Your task to perform on an android device: Is it going to rain today? Image 0: 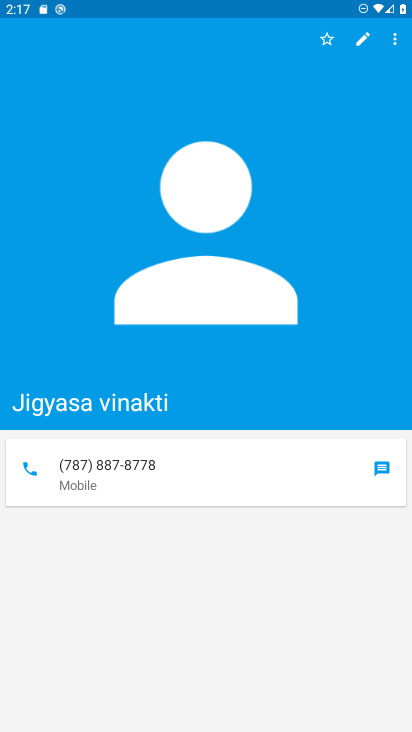
Step 0: press home button
Your task to perform on an android device: Is it going to rain today? Image 1: 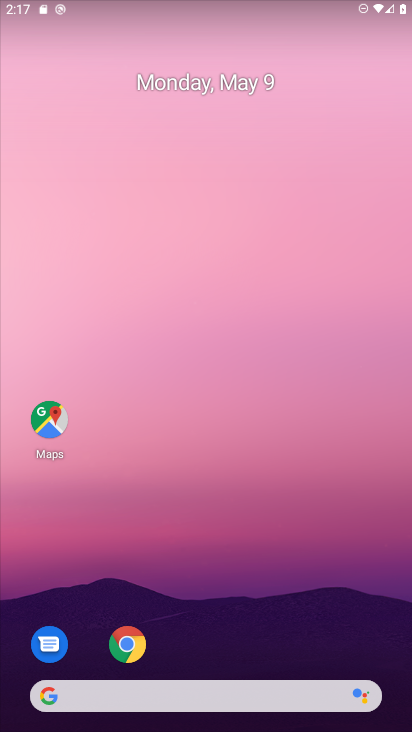
Step 1: drag from (249, 596) to (119, 0)
Your task to perform on an android device: Is it going to rain today? Image 2: 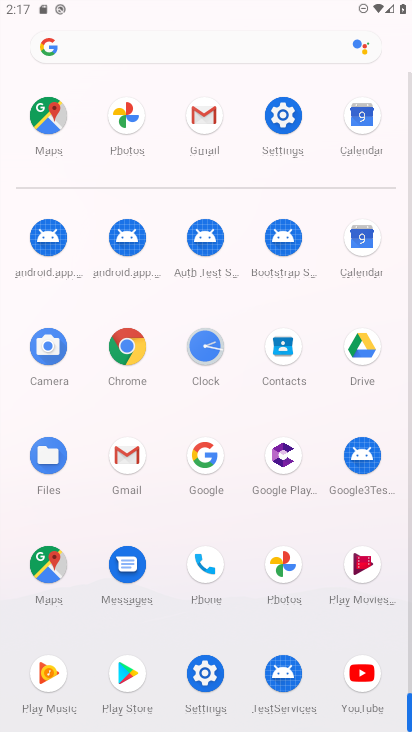
Step 2: click (201, 469)
Your task to perform on an android device: Is it going to rain today? Image 3: 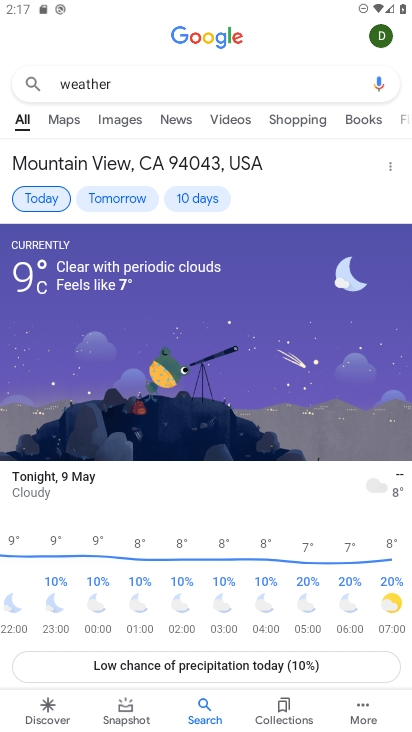
Step 3: task complete